Your task to perform on an android device: Open Yahoo.com Image 0: 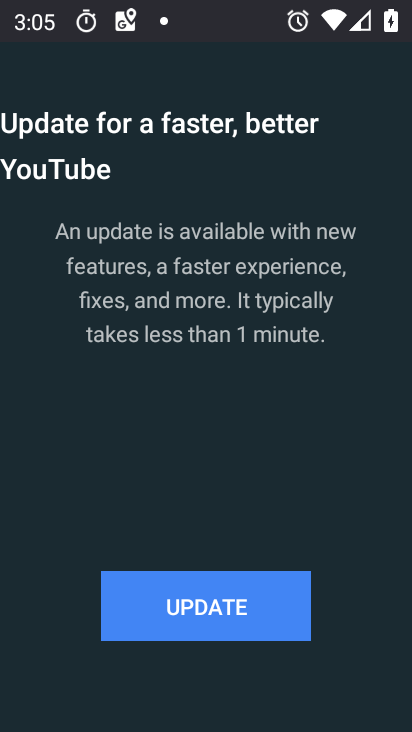
Step 0: press home button
Your task to perform on an android device: Open Yahoo.com Image 1: 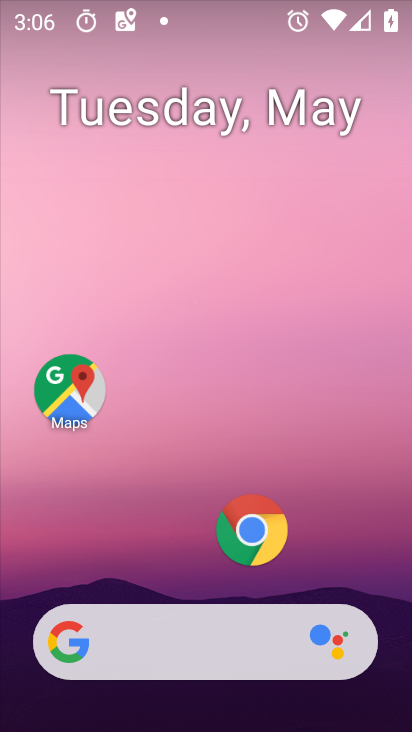
Step 1: click (236, 533)
Your task to perform on an android device: Open Yahoo.com Image 2: 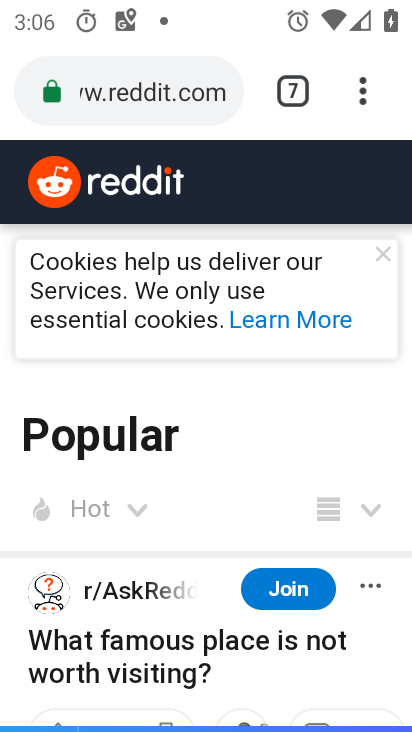
Step 2: click (285, 77)
Your task to perform on an android device: Open Yahoo.com Image 3: 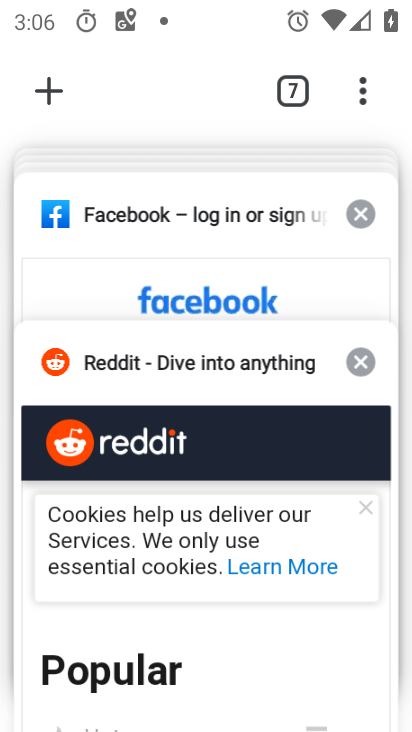
Step 3: click (52, 87)
Your task to perform on an android device: Open Yahoo.com Image 4: 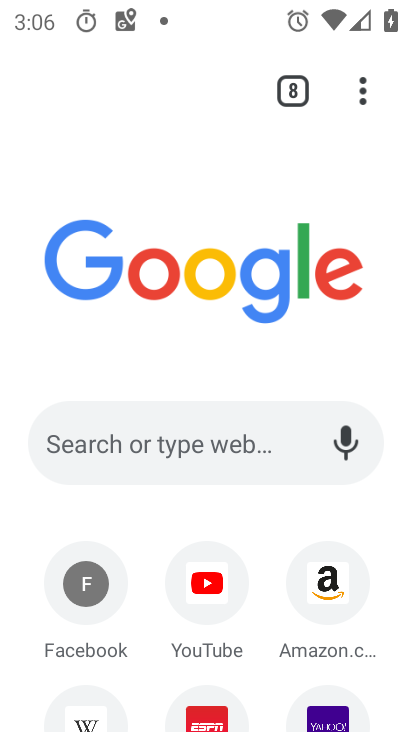
Step 4: click (327, 699)
Your task to perform on an android device: Open Yahoo.com Image 5: 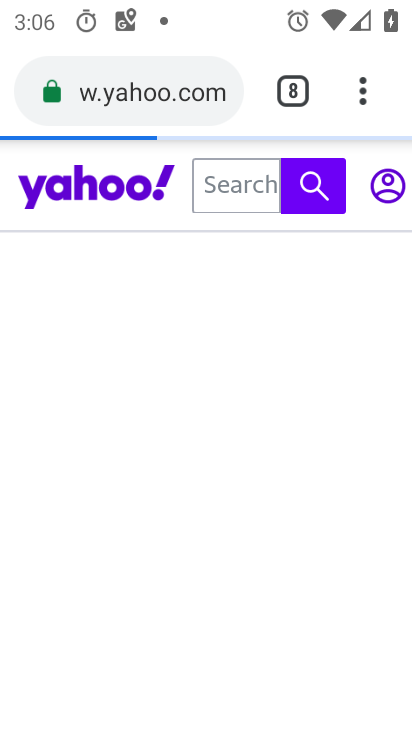
Step 5: task complete